Your task to perform on an android device: empty trash in google photos Image 0: 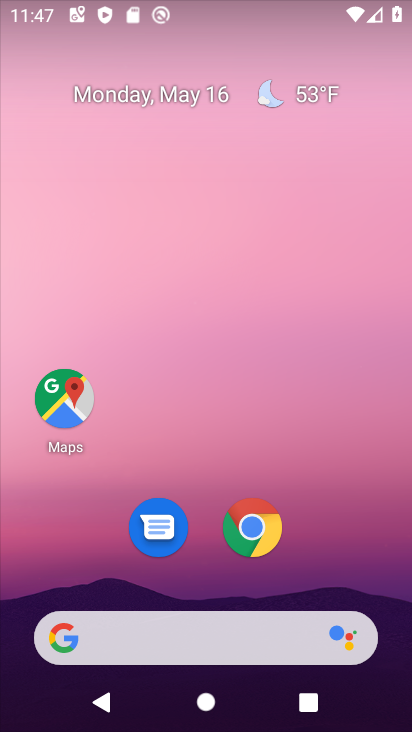
Step 0: drag from (136, 642) to (226, 223)
Your task to perform on an android device: empty trash in google photos Image 1: 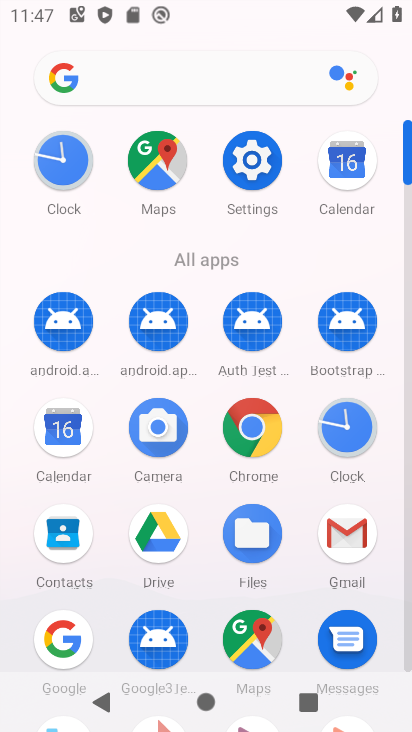
Step 1: drag from (199, 559) to (326, 90)
Your task to perform on an android device: empty trash in google photos Image 2: 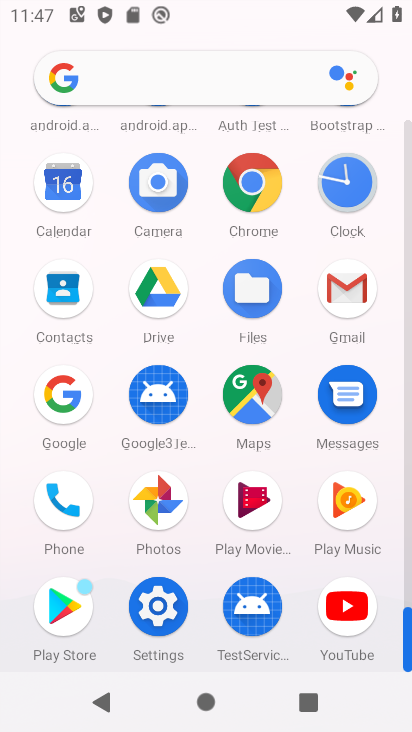
Step 2: click (162, 509)
Your task to perform on an android device: empty trash in google photos Image 3: 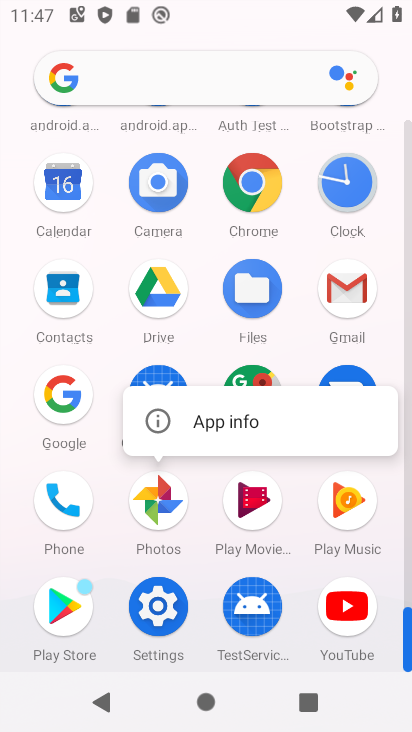
Step 3: click (153, 497)
Your task to perform on an android device: empty trash in google photos Image 4: 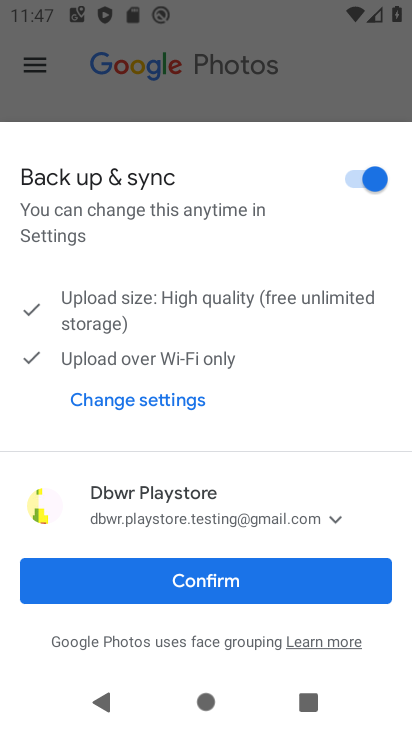
Step 4: click (212, 581)
Your task to perform on an android device: empty trash in google photos Image 5: 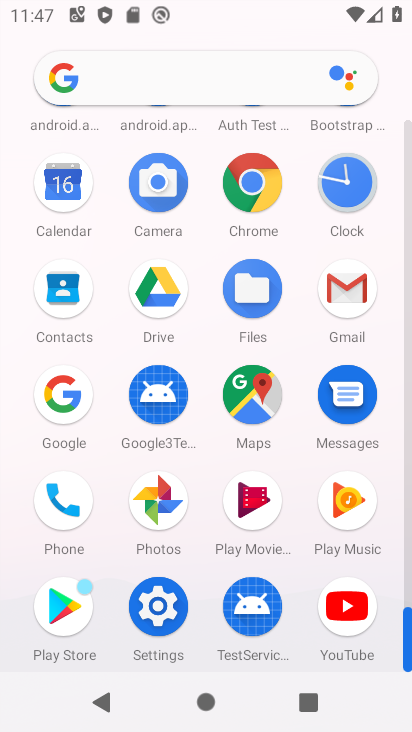
Step 5: click (156, 499)
Your task to perform on an android device: empty trash in google photos Image 6: 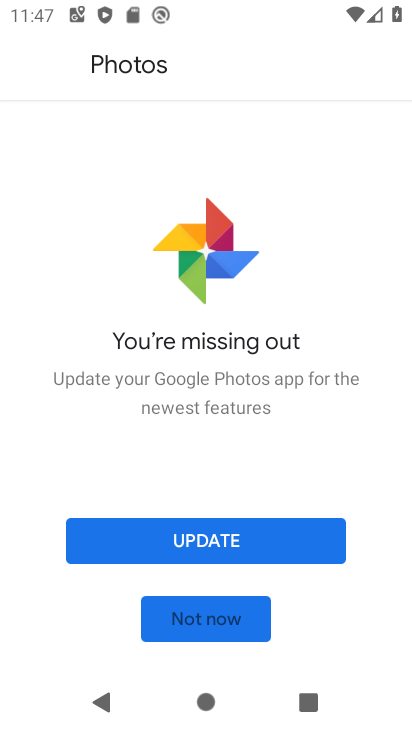
Step 6: click (183, 542)
Your task to perform on an android device: empty trash in google photos Image 7: 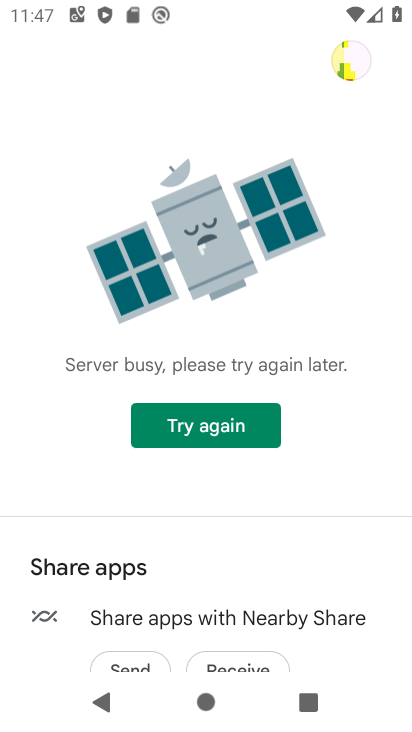
Step 7: click (224, 427)
Your task to perform on an android device: empty trash in google photos Image 8: 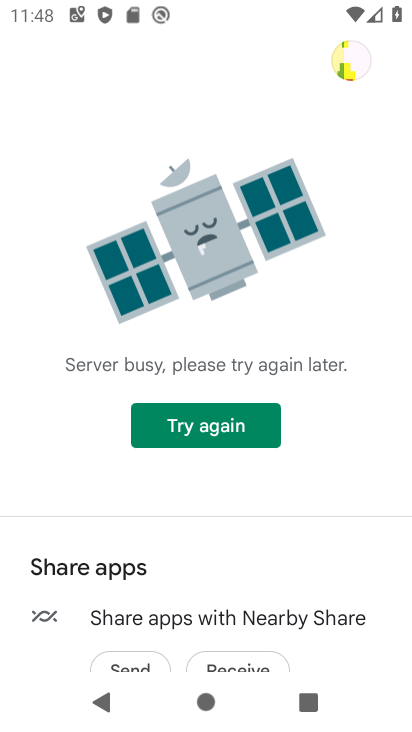
Step 8: click (222, 429)
Your task to perform on an android device: empty trash in google photos Image 9: 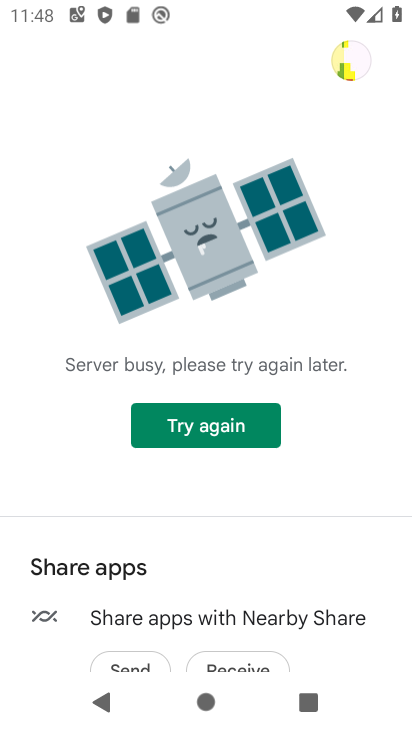
Step 9: press back button
Your task to perform on an android device: empty trash in google photos Image 10: 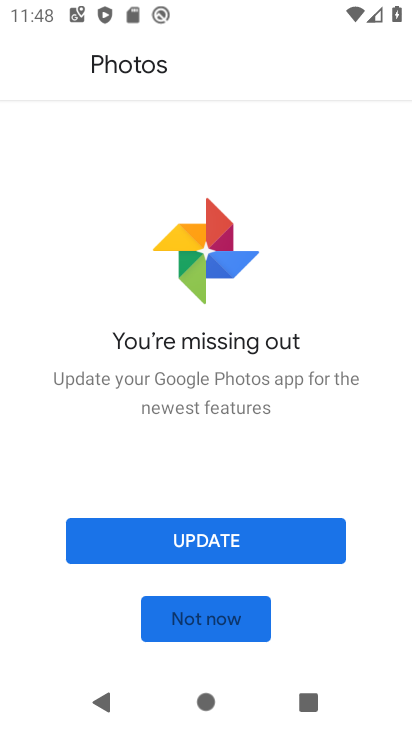
Step 10: click (208, 625)
Your task to perform on an android device: empty trash in google photos Image 11: 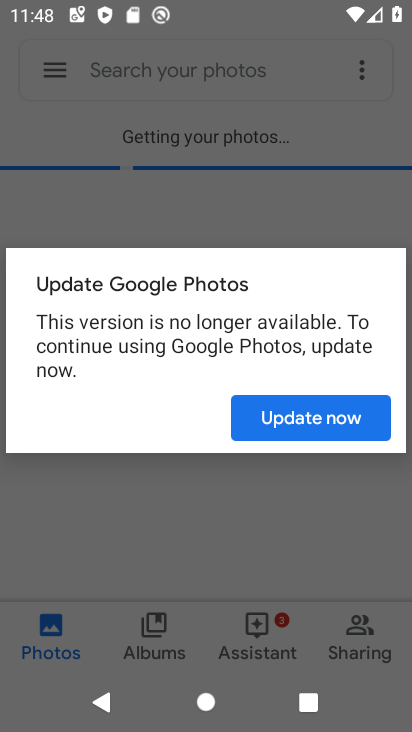
Step 11: click (274, 420)
Your task to perform on an android device: empty trash in google photos Image 12: 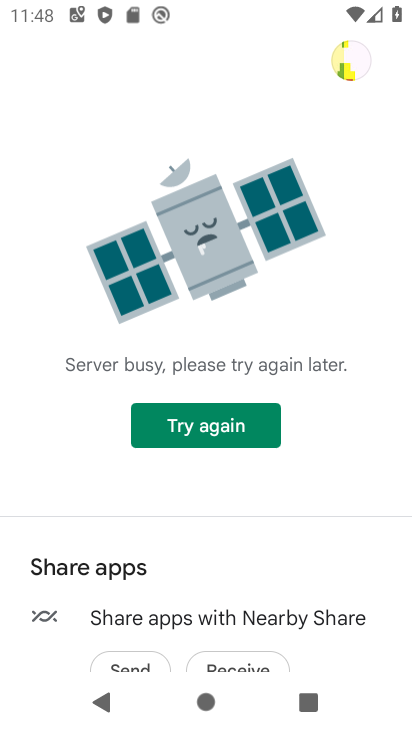
Step 12: click (225, 430)
Your task to perform on an android device: empty trash in google photos Image 13: 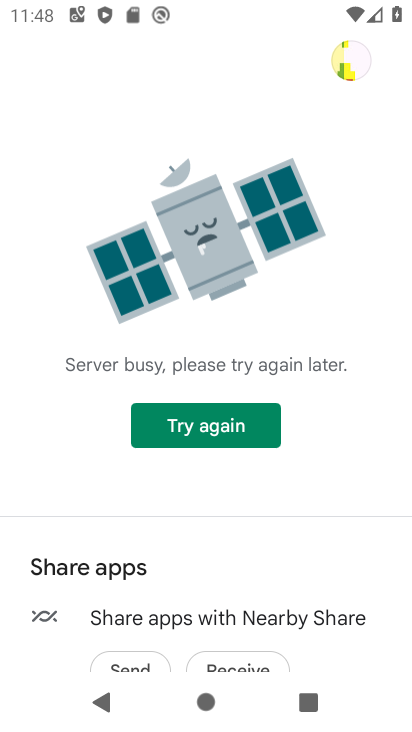
Step 13: task complete